Your task to perform on an android device: make emails show in primary in the gmail app Image 0: 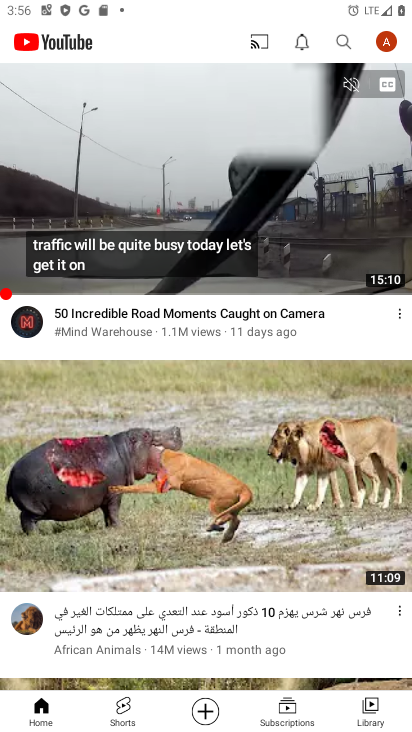
Step 0: press home button
Your task to perform on an android device: make emails show in primary in the gmail app Image 1: 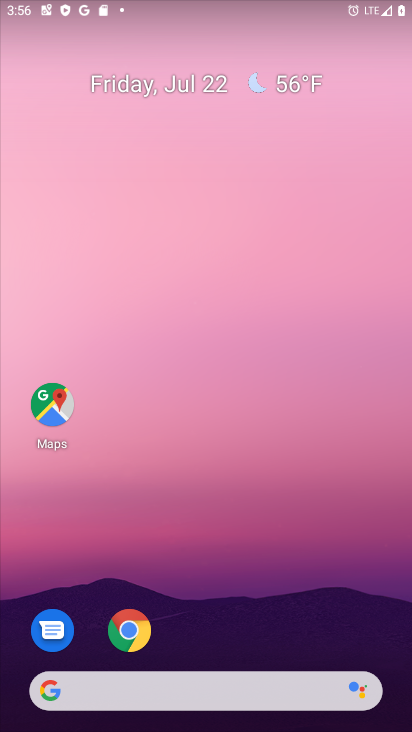
Step 1: drag from (228, 696) to (217, 188)
Your task to perform on an android device: make emails show in primary in the gmail app Image 2: 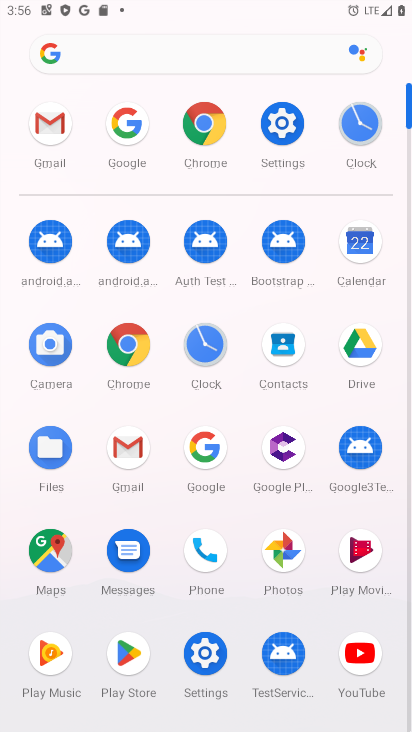
Step 2: click (138, 442)
Your task to perform on an android device: make emails show in primary in the gmail app Image 3: 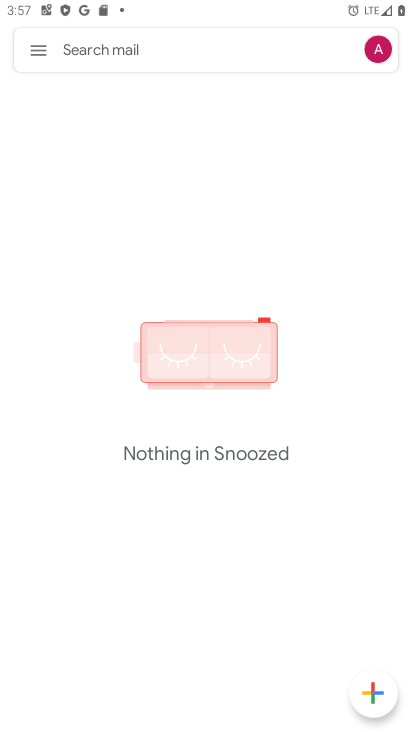
Step 3: click (37, 45)
Your task to perform on an android device: make emails show in primary in the gmail app Image 4: 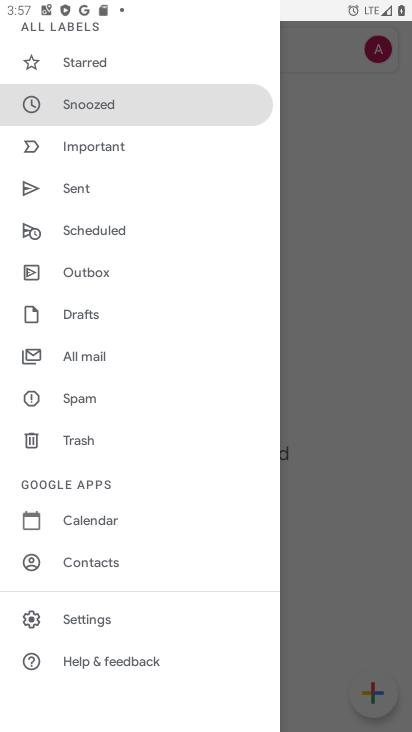
Step 4: click (74, 616)
Your task to perform on an android device: make emails show in primary in the gmail app Image 5: 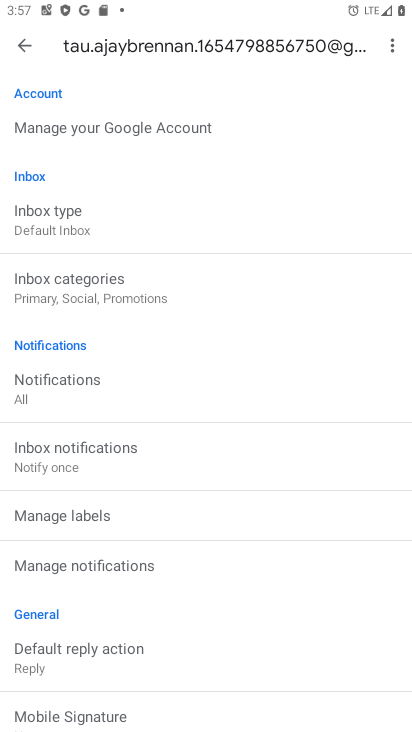
Step 5: click (77, 283)
Your task to perform on an android device: make emails show in primary in the gmail app Image 6: 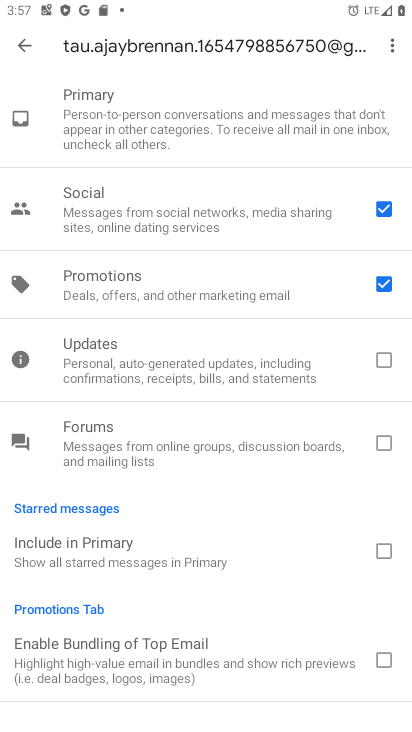
Step 6: click (378, 212)
Your task to perform on an android device: make emails show in primary in the gmail app Image 7: 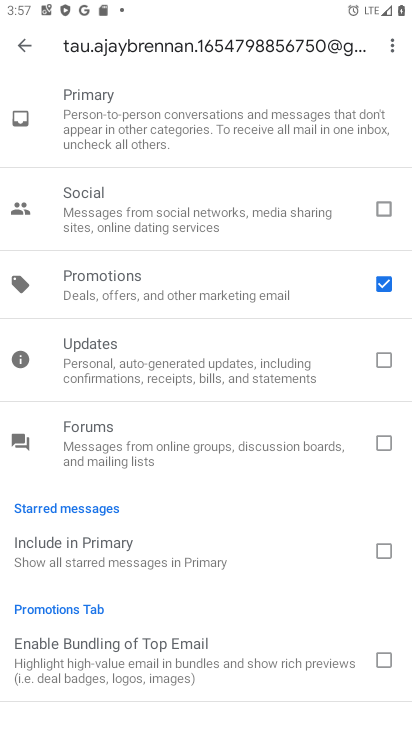
Step 7: click (383, 286)
Your task to perform on an android device: make emails show in primary in the gmail app Image 8: 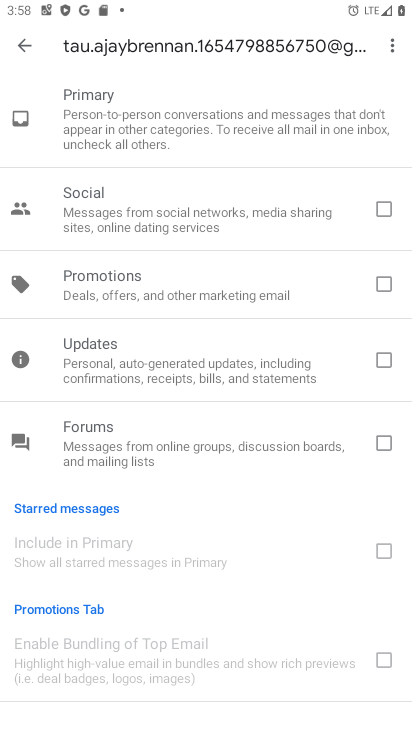
Step 8: task complete